Your task to perform on an android device: change the clock display to digital Image 0: 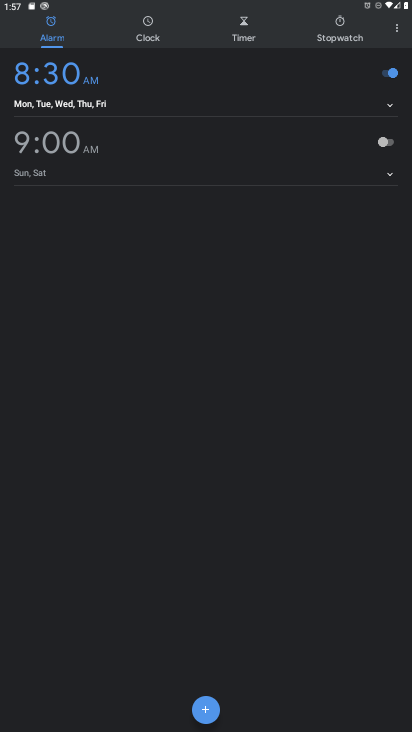
Step 0: click (393, 29)
Your task to perform on an android device: change the clock display to digital Image 1: 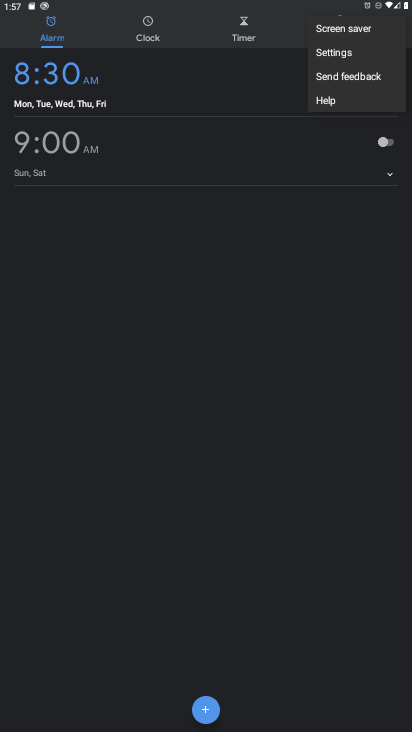
Step 1: click (324, 60)
Your task to perform on an android device: change the clock display to digital Image 2: 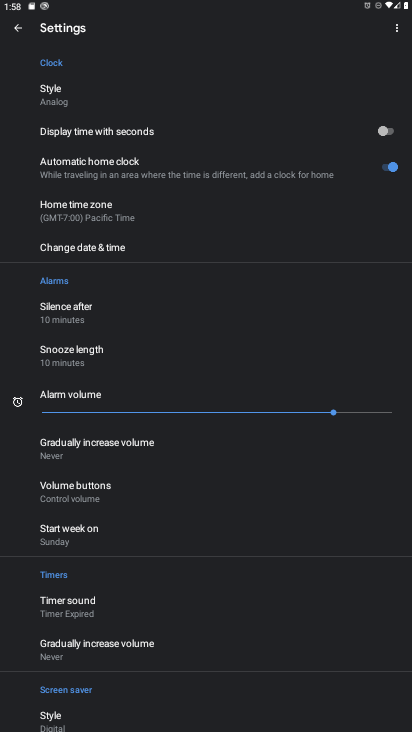
Step 2: click (47, 100)
Your task to perform on an android device: change the clock display to digital Image 3: 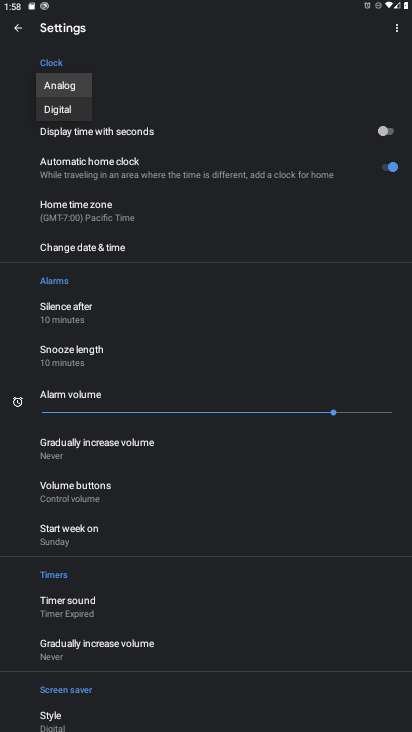
Step 3: click (66, 84)
Your task to perform on an android device: change the clock display to digital Image 4: 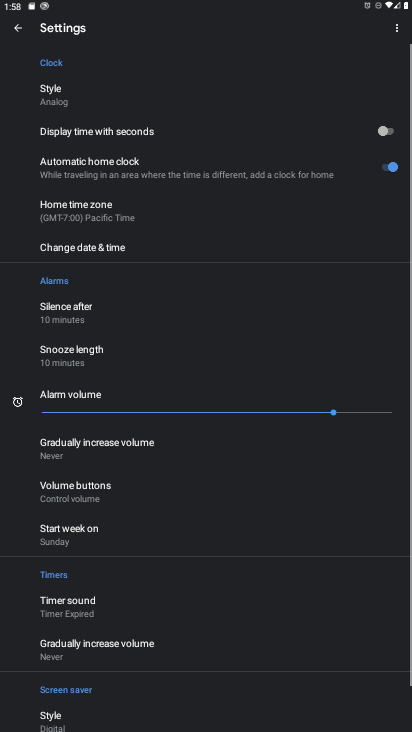
Step 4: task complete